Your task to perform on an android device: What's the weather today? Image 0: 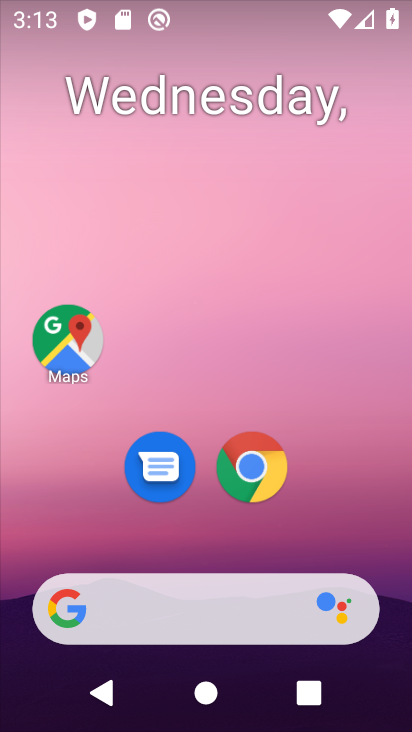
Step 0: drag from (336, 544) to (268, 24)
Your task to perform on an android device: What's the weather today? Image 1: 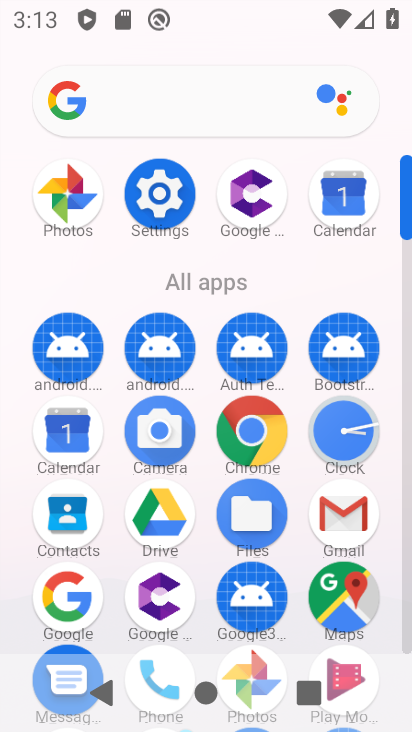
Step 1: click (70, 606)
Your task to perform on an android device: What's the weather today? Image 2: 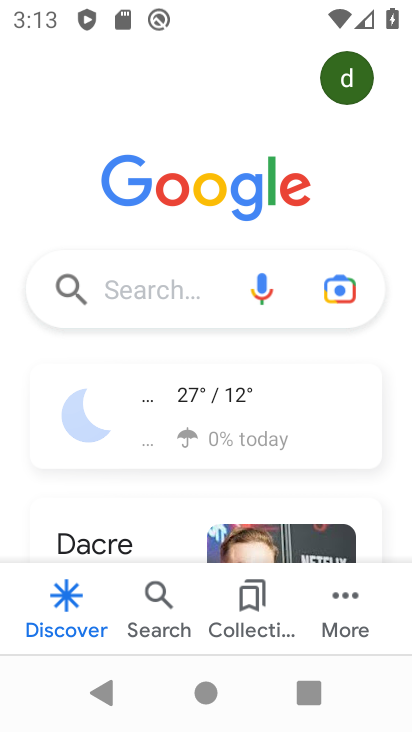
Step 2: click (224, 391)
Your task to perform on an android device: What's the weather today? Image 3: 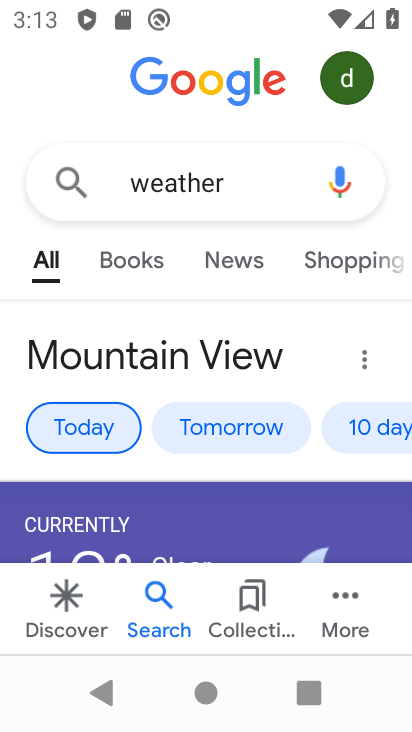
Step 3: task complete